Your task to perform on an android device: uninstall "Pandora - Music & Podcasts" Image 0: 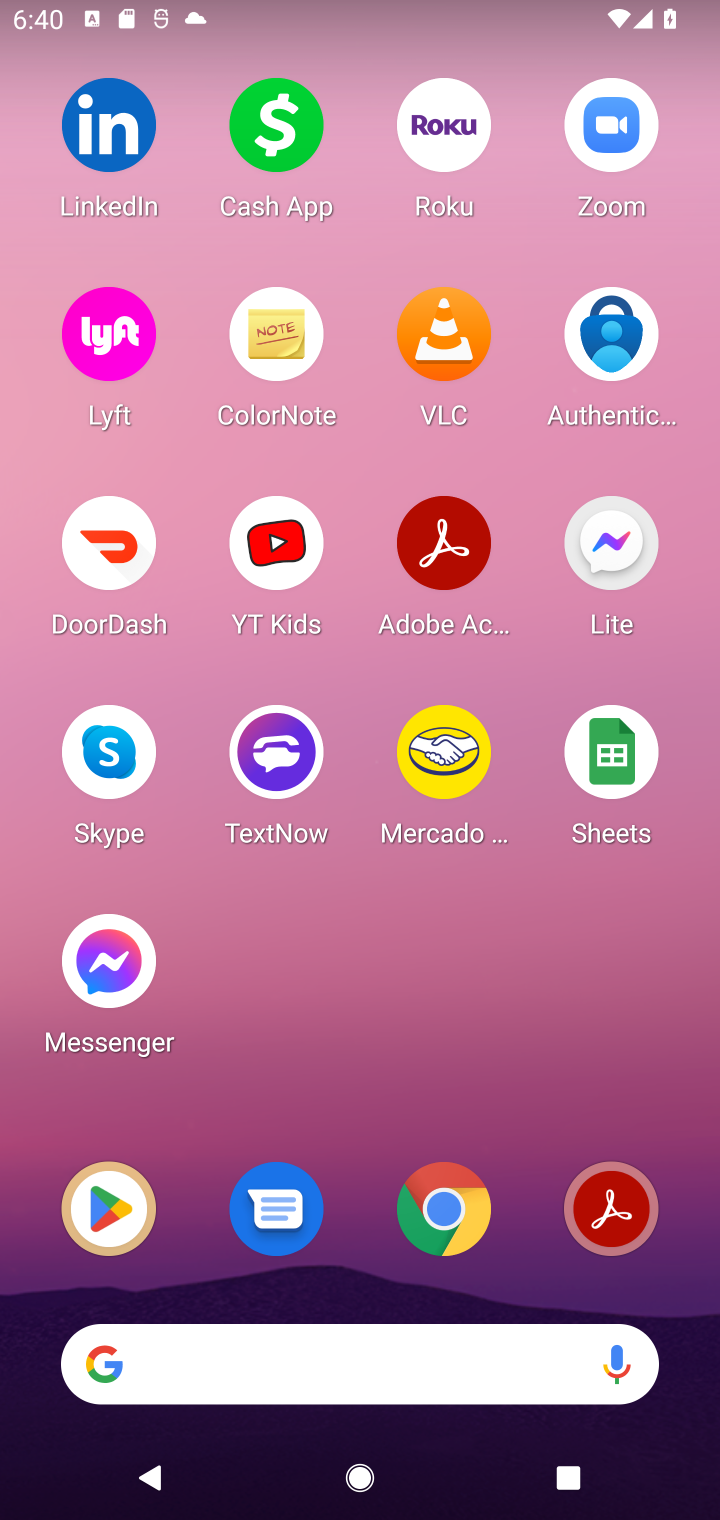
Step 0: click (78, 1209)
Your task to perform on an android device: uninstall "Pandora - Music & Podcasts" Image 1: 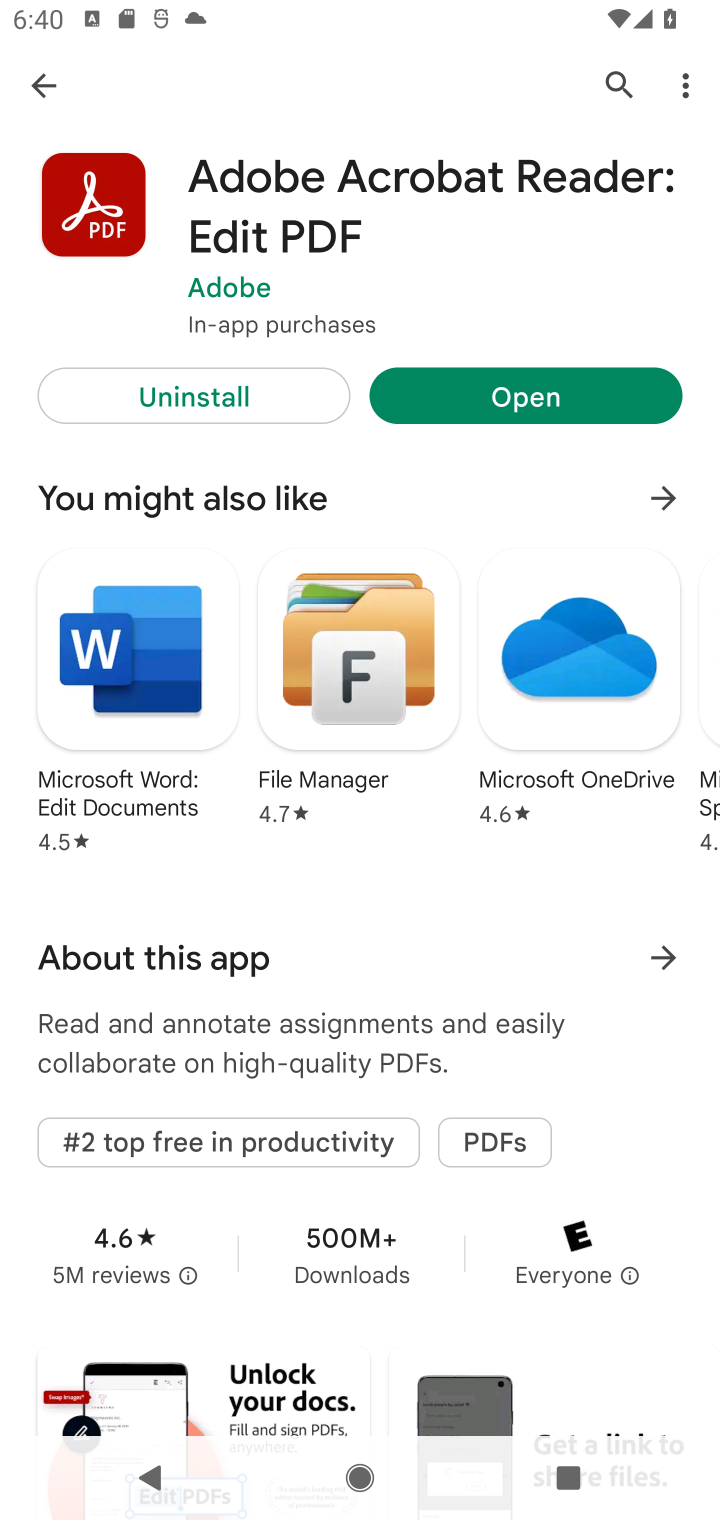
Step 1: click (598, 91)
Your task to perform on an android device: uninstall "Pandora - Music & Podcasts" Image 2: 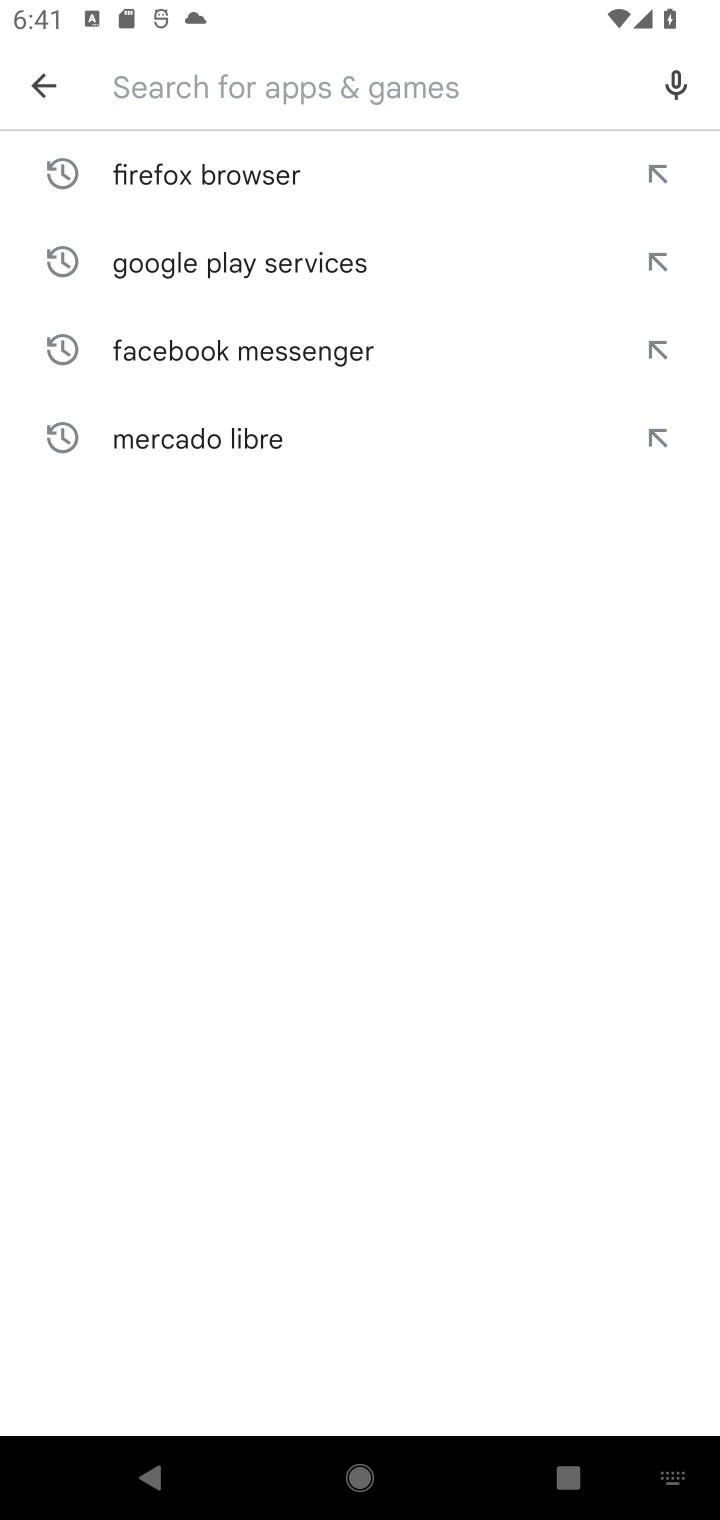
Step 2: type "Pandora - Music & Podcasts"
Your task to perform on an android device: uninstall "Pandora - Music & Podcasts" Image 3: 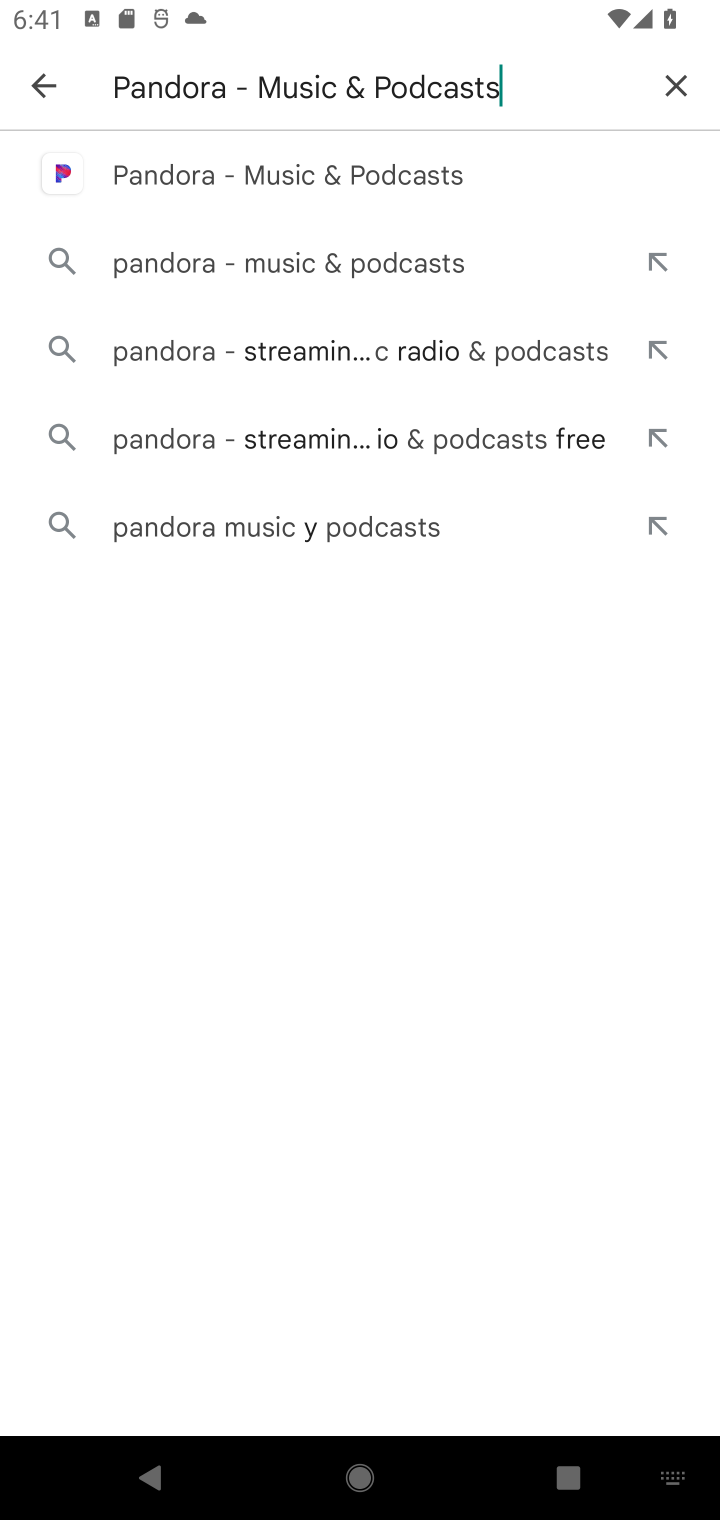
Step 3: click (311, 199)
Your task to perform on an android device: uninstall "Pandora - Music & Podcasts" Image 4: 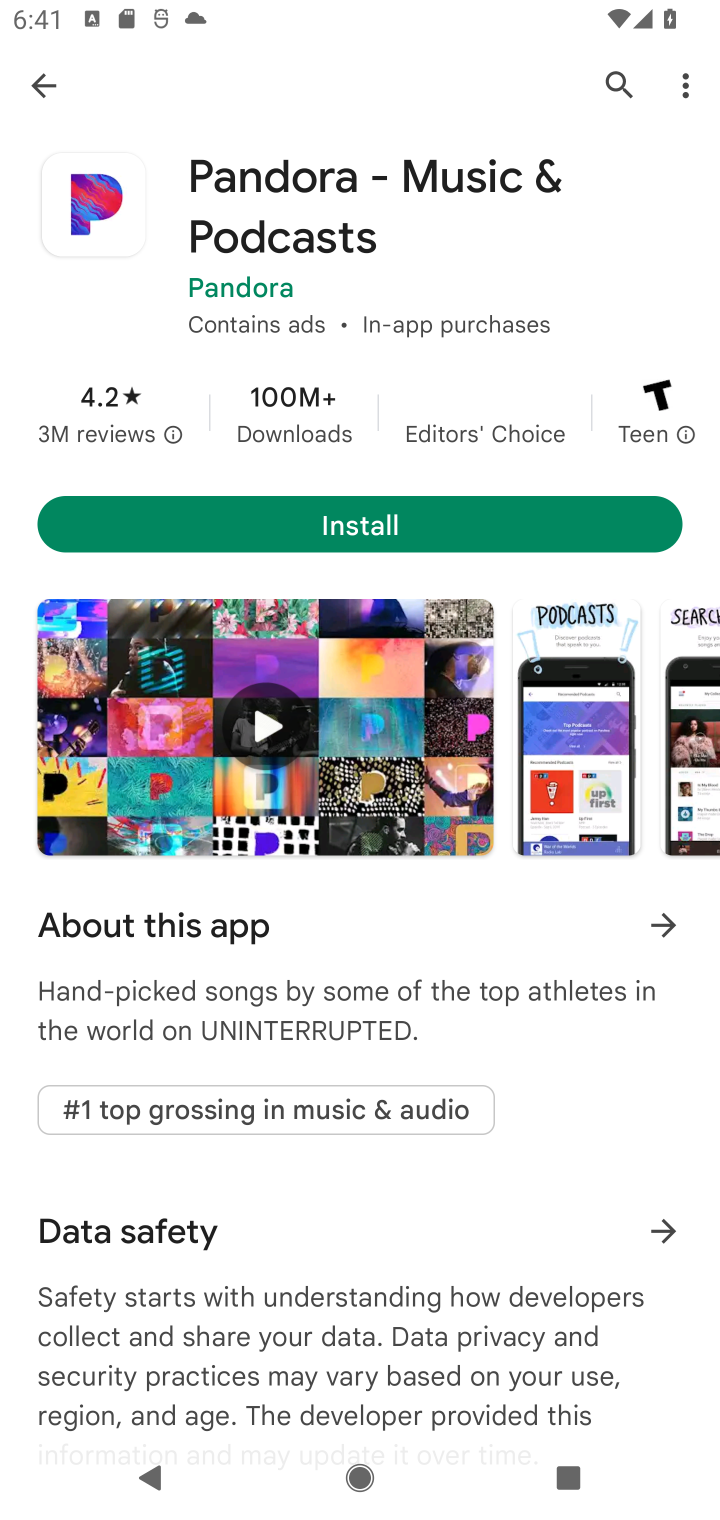
Step 4: task complete